Your task to perform on an android device: Search for vegetarian restaurants on Maps Image 0: 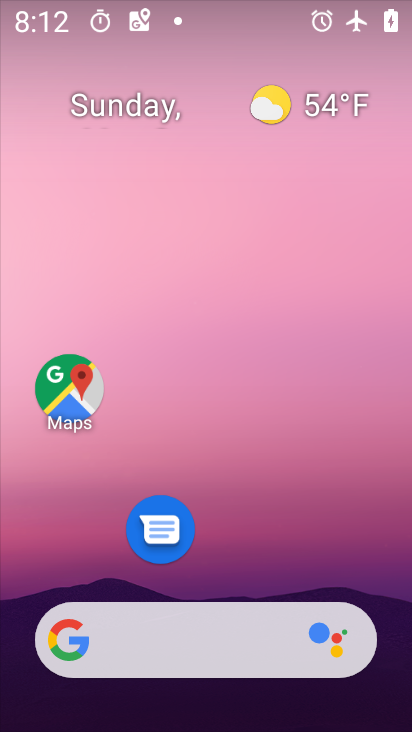
Step 0: click (93, 384)
Your task to perform on an android device: Search for vegetarian restaurants on Maps Image 1: 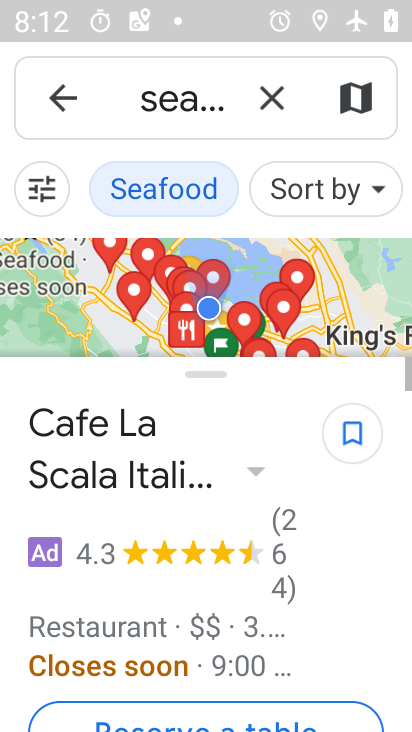
Step 1: click (261, 101)
Your task to perform on an android device: Search for vegetarian restaurants on Maps Image 2: 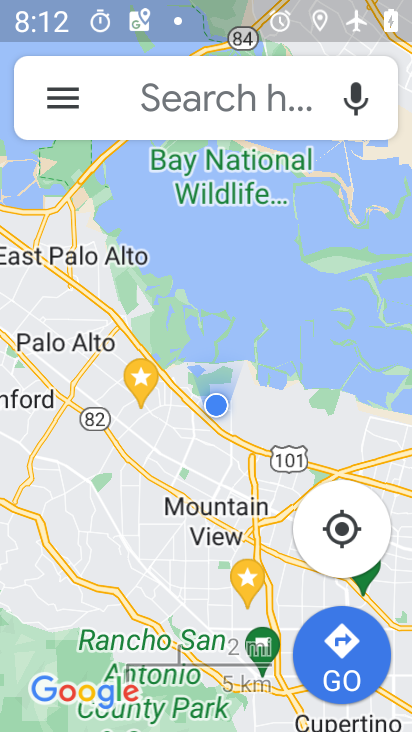
Step 2: click (224, 106)
Your task to perform on an android device: Search for vegetarian restaurants on Maps Image 3: 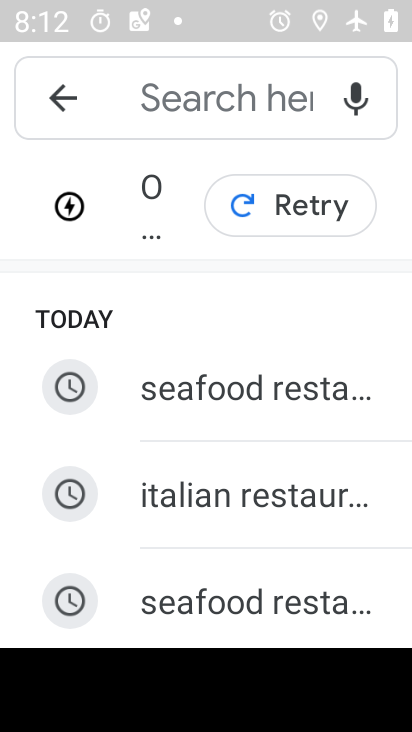
Step 3: type "vegetarian restaurants"
Your task to perform on an android device: Search for vegetarian restaurants on Maps Image 4: 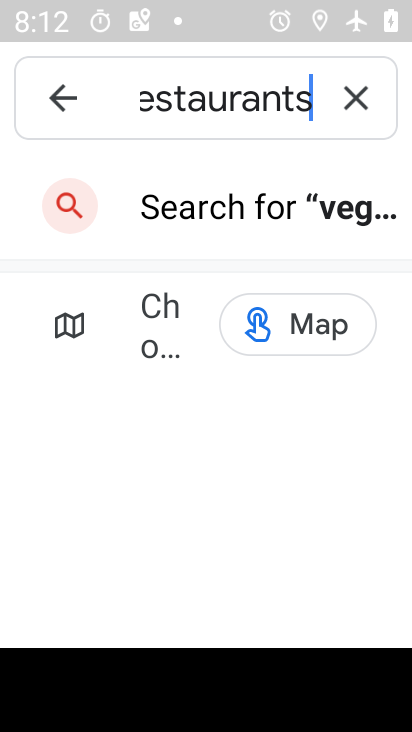
Step 4: click (313, 238)
Your task to perform on an android device: Search for vegetarian restaurants on Maps Image 5: 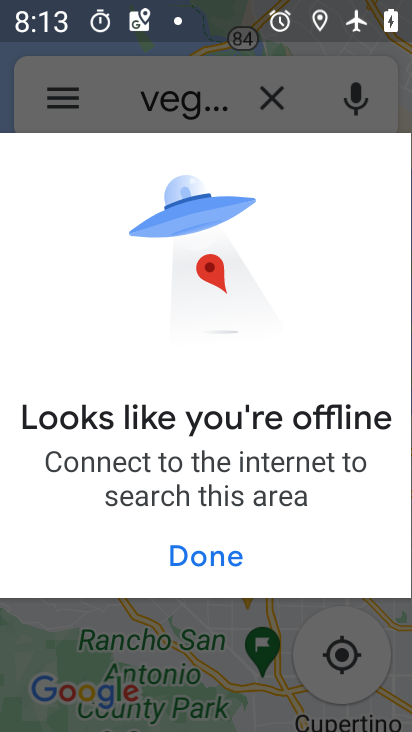
Step 5: click (222, 557)
Your task to perform on an android device: Search for vegetarian restaurants on Maps Image 6: 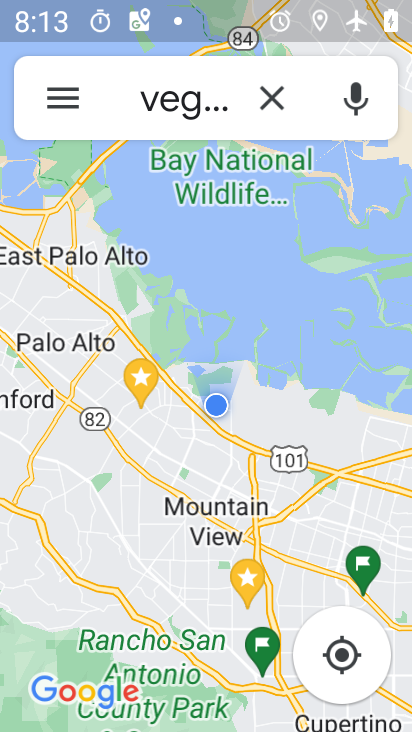
Step 6: task complete